Your task to perform on an android device: Show me popular games on the Play Store Image 0: 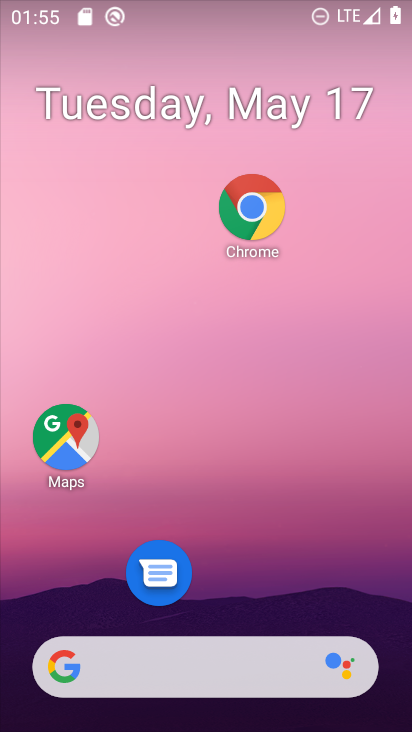
Step 0: drag from (221, 636) to (307, 37)
Your task to perform on an android device: Show me popular games on the Play Store Image 1: 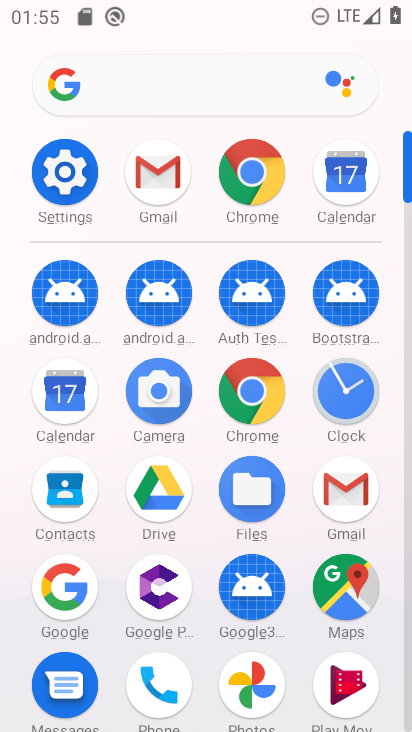
Step 1: drag from (292, 639) to (318, 232)
Your task to perform on an android device: Show me popular games on the Play Store Image 2: 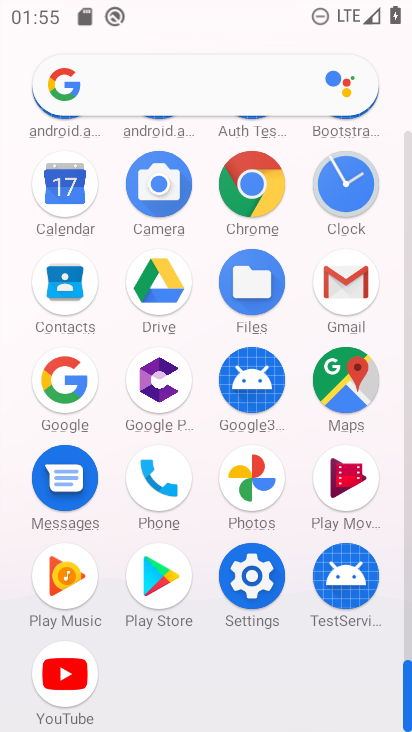
Step 2: click (147, 577)
Your task to perform on an android device: Show me popular games on the Play Store Image 3: 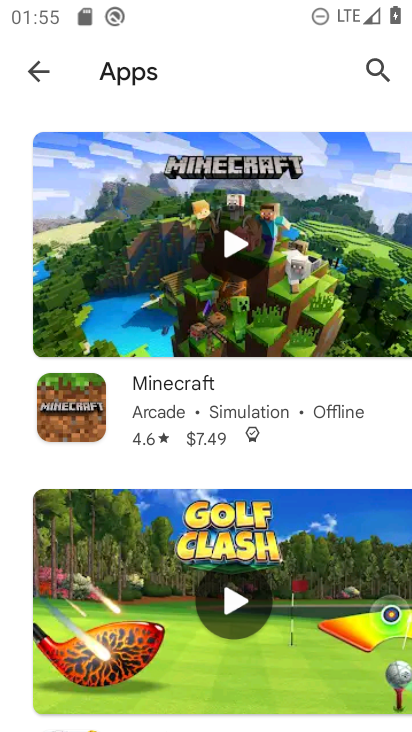
Step 3: drag from (328, 463) to (325, 5)
Your task to perform on an android device: Show me popular games on the Play Store Image 4: 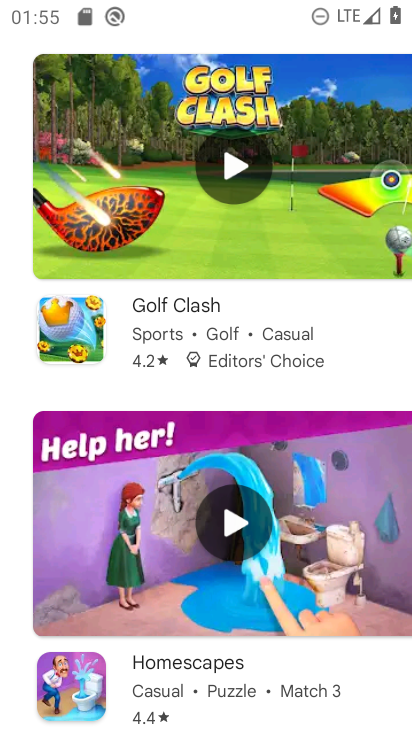
Step 4: press back button
Your task to perform on an android device: Show me popular games on the Play Store Image 5: 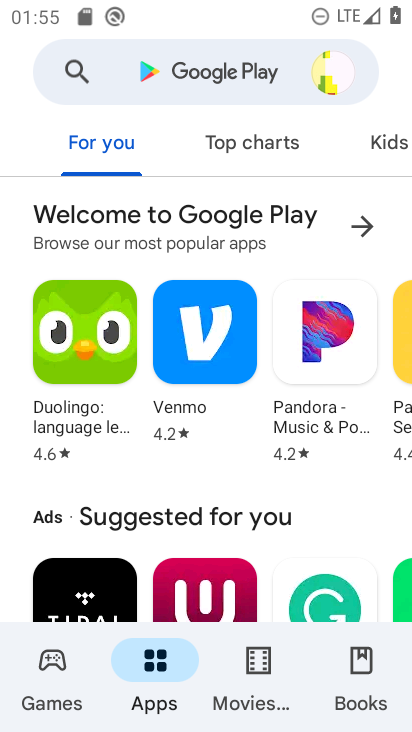
Step 5: click (37, 675)
Your task to perform on an android device: Show me popular games on the Play Store Image 6: 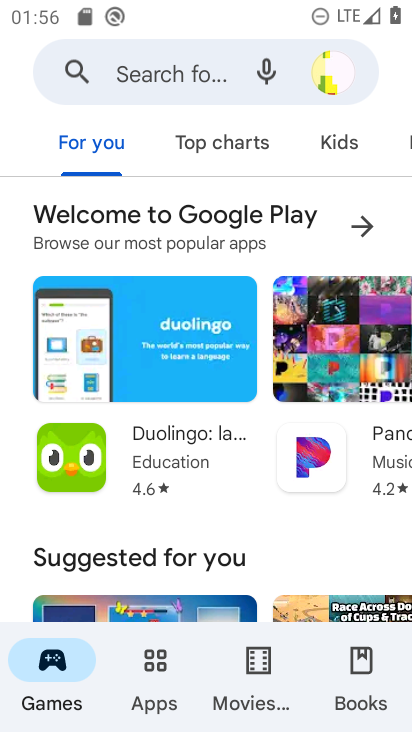
Step 6: drag from (263, 492) to (308, 93)
Your task to perform on an android device: Show me popular games on the Play Store Image 7: 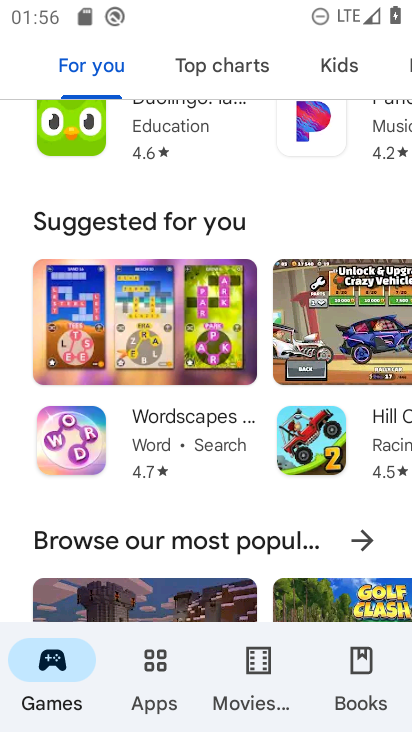
Step 7: click (358, 547)
Your task to perform on an android device: Show me popular games on the Play Store Image 8: 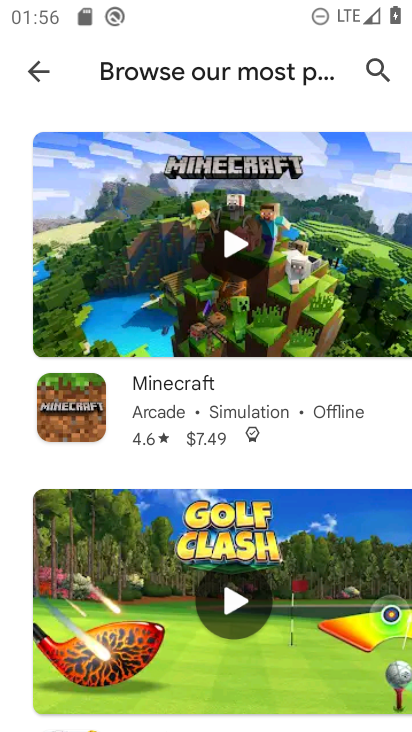
Step 8: task complete